Your task to perform on an android device: Open sound settings Image 0: 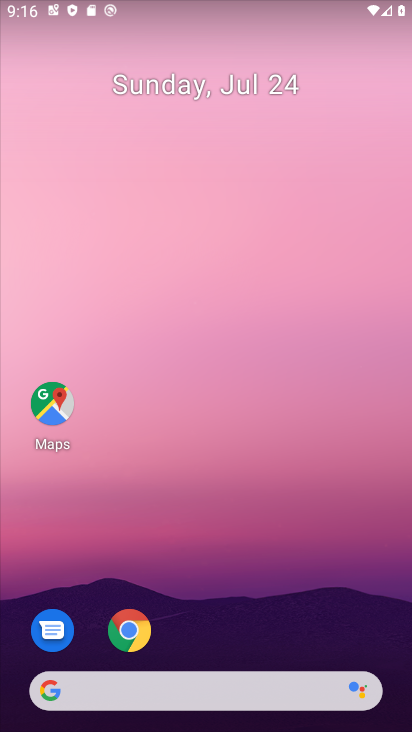
Step 0: drag from (213, 640) to (203, 94)
Your task to perform on an android device: Open sound settings Image 1: 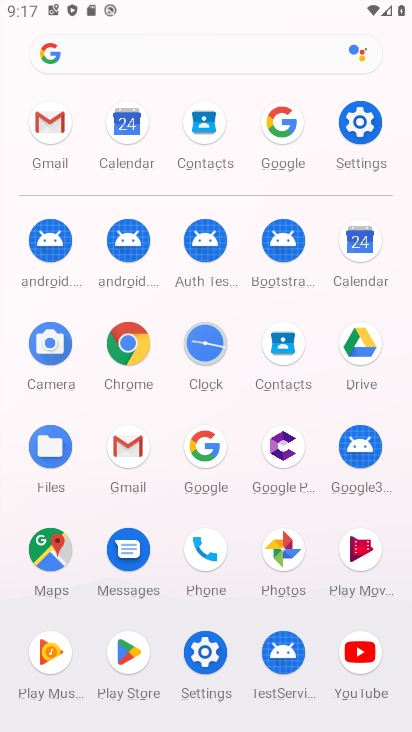
Step 1: click (372, 140)
Your task to perform on an android device: Open sound settings Image 2: 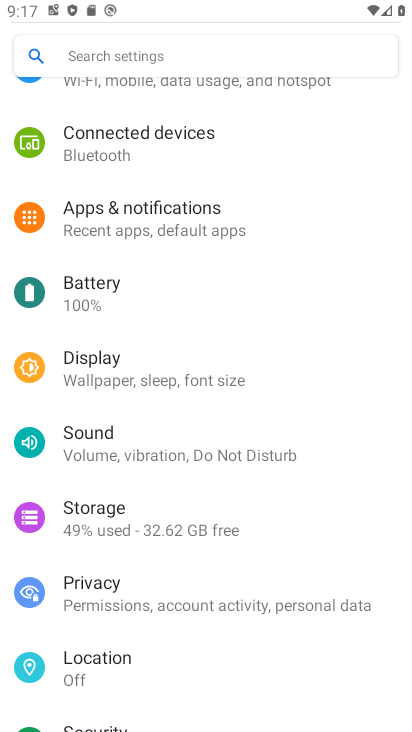
Step 2: click (87, 460)
Your task to perform on an android device: Open sound settings Image 3: 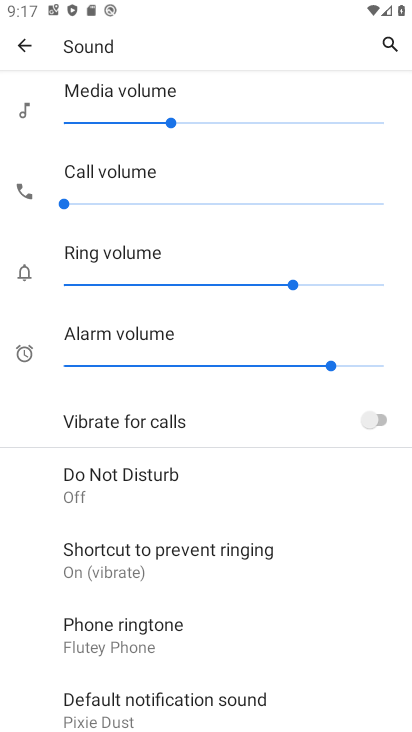
Step 3: task complete